Your task to perform on an android device: install app "McDonald's" Image 0: 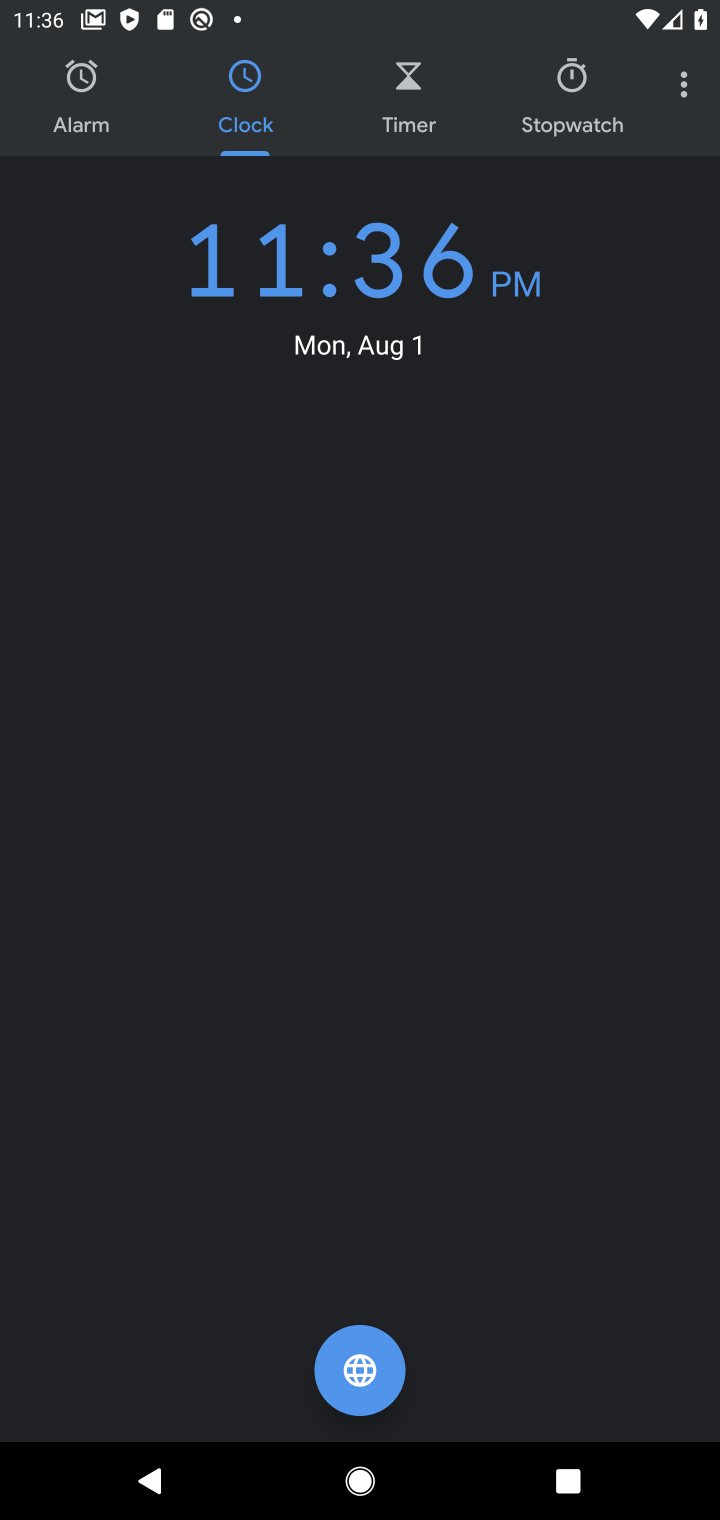
Step 0: press home button
Your task to perform on an android device: install app "McDonald's" Image 1: 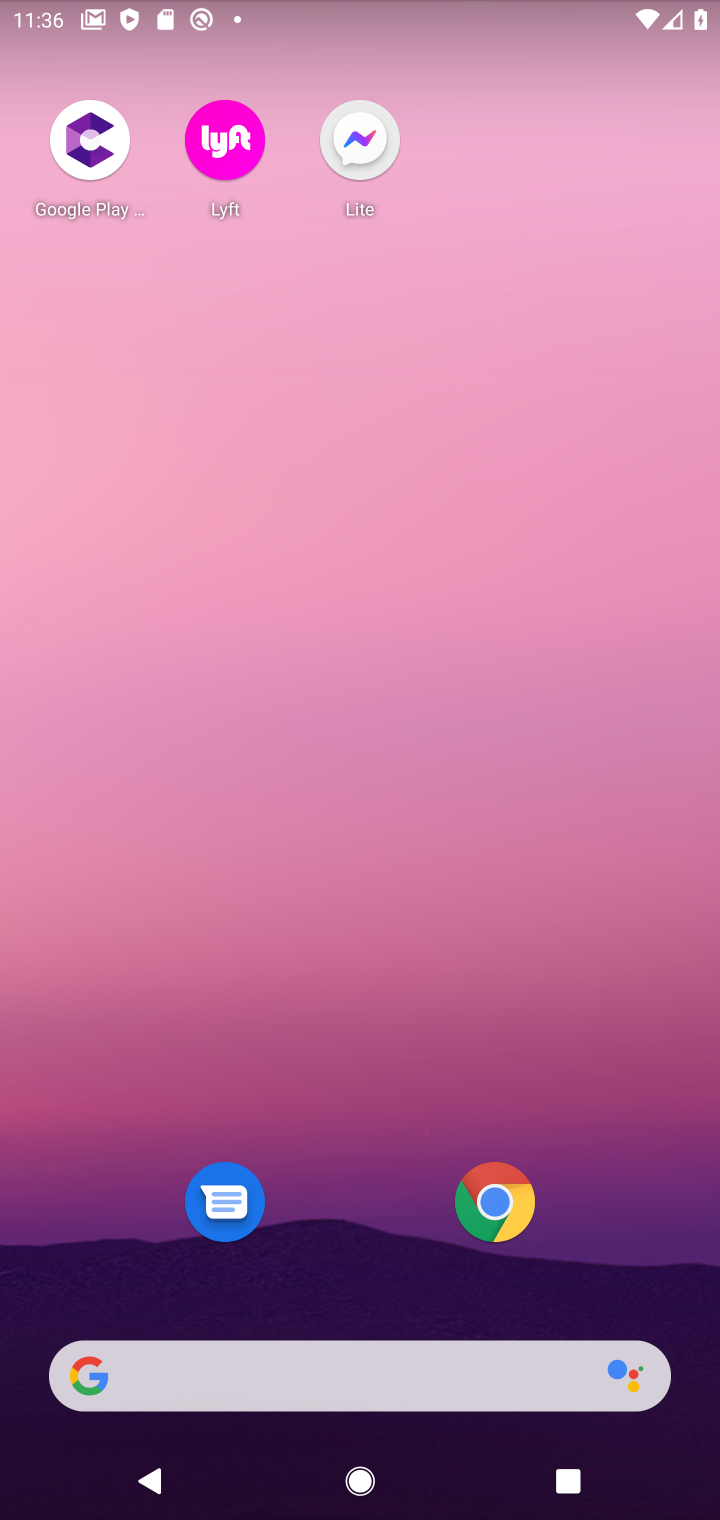
Step 1: drag from (322, 776) to (346, 74)
Your task to perform on an android device: install app "McDonald's" Image 2: 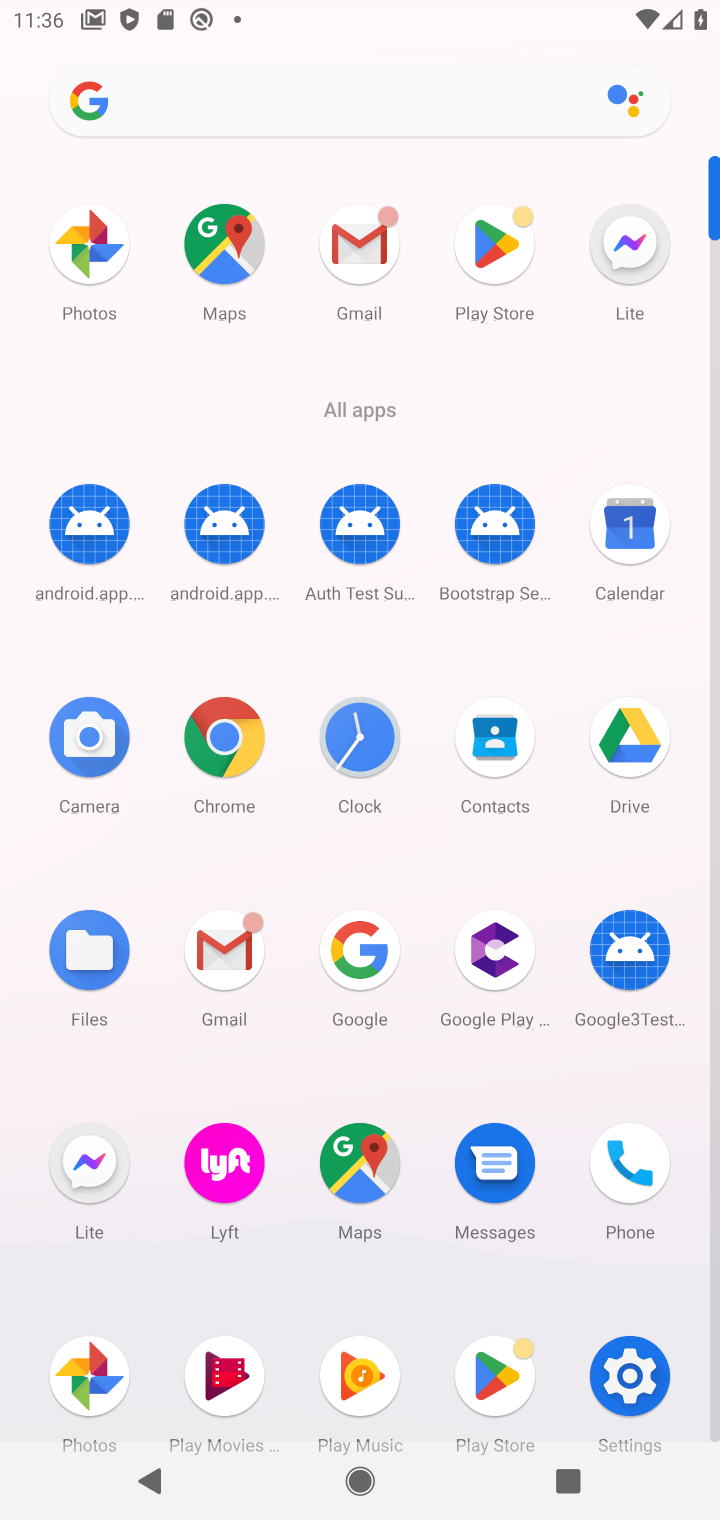
Step 2: click (491, 268)
Your task to perform on an android device: install app "McDonald's" Image 3: 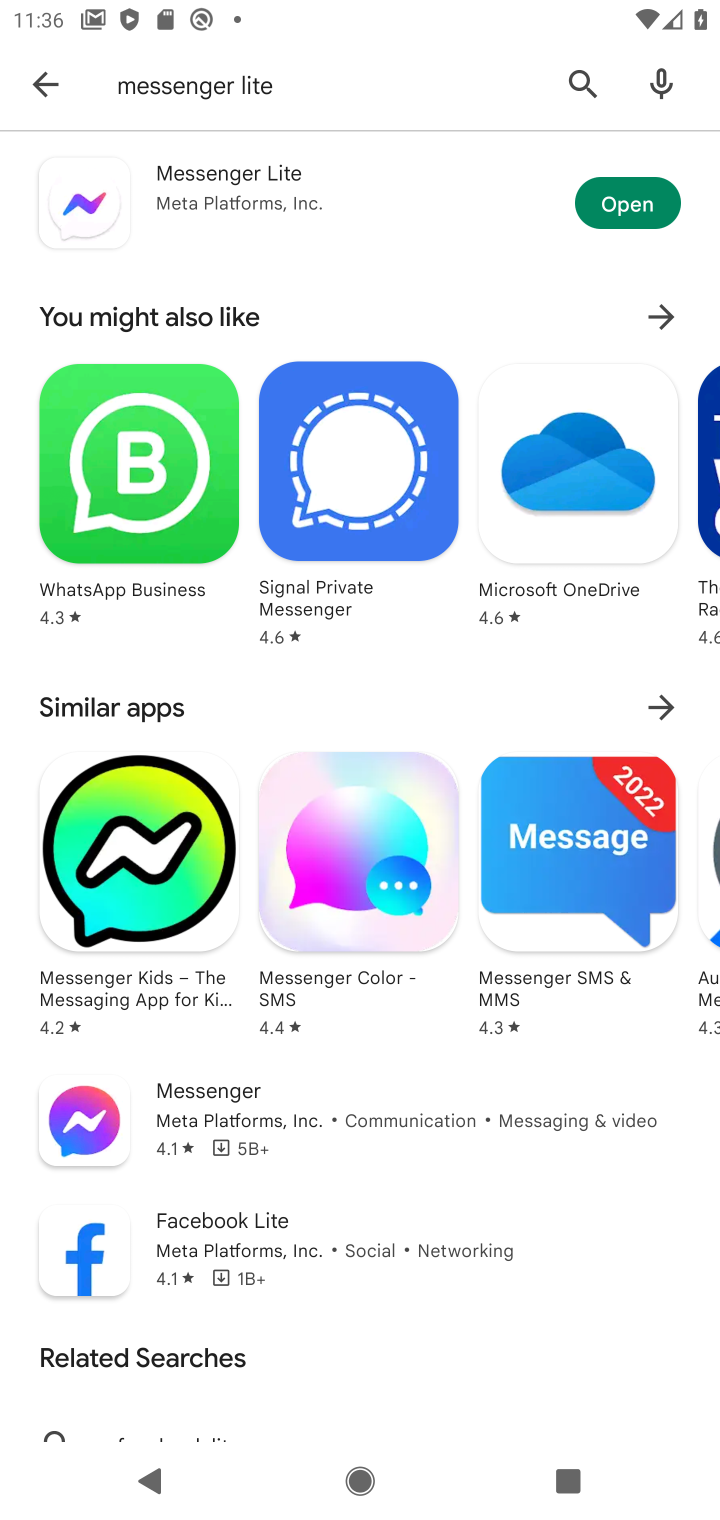
Step 3: click (37, 78)
Your task to perform on an android device: install app "McDonald's" Image 4: 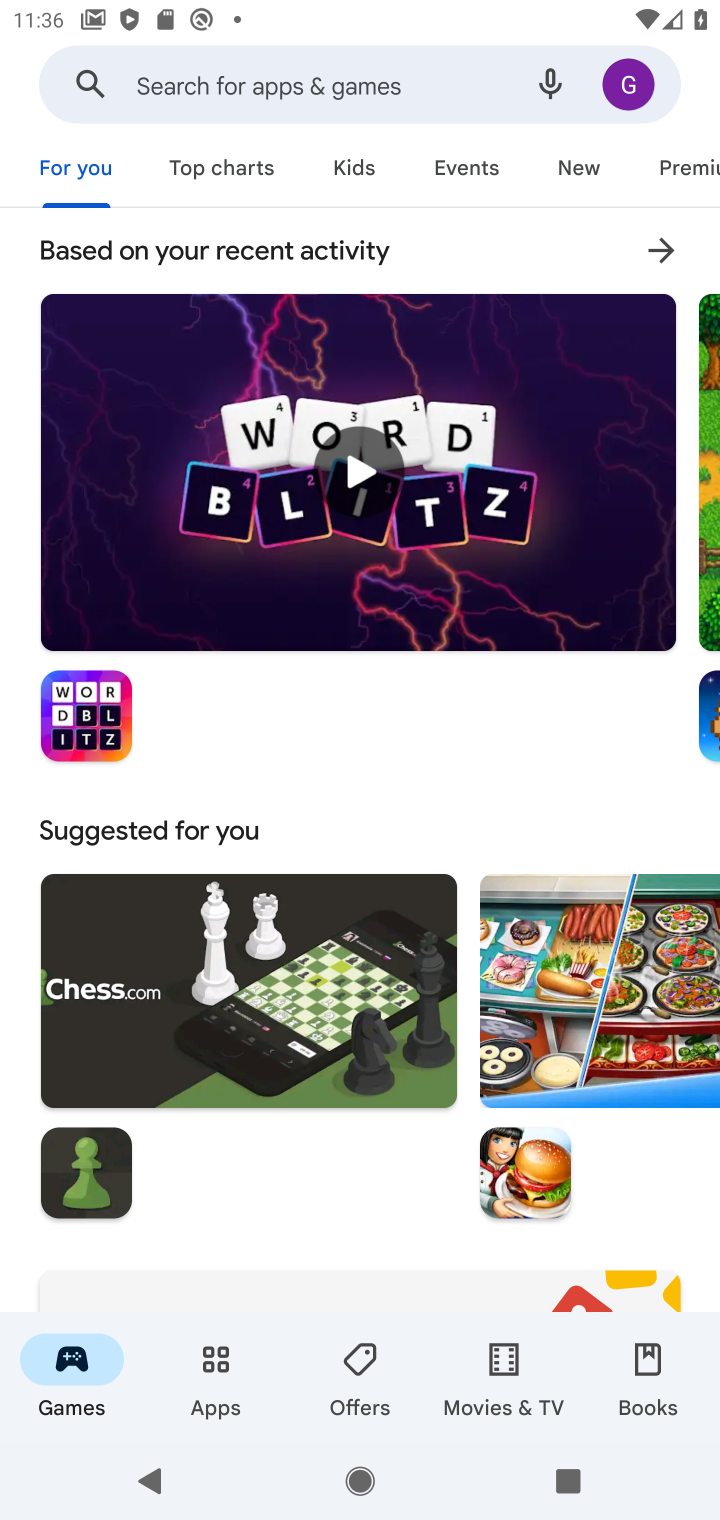
Step 4: click (319, 90)
Your task to perform on an android device: install app "McDonald's" Image 5: 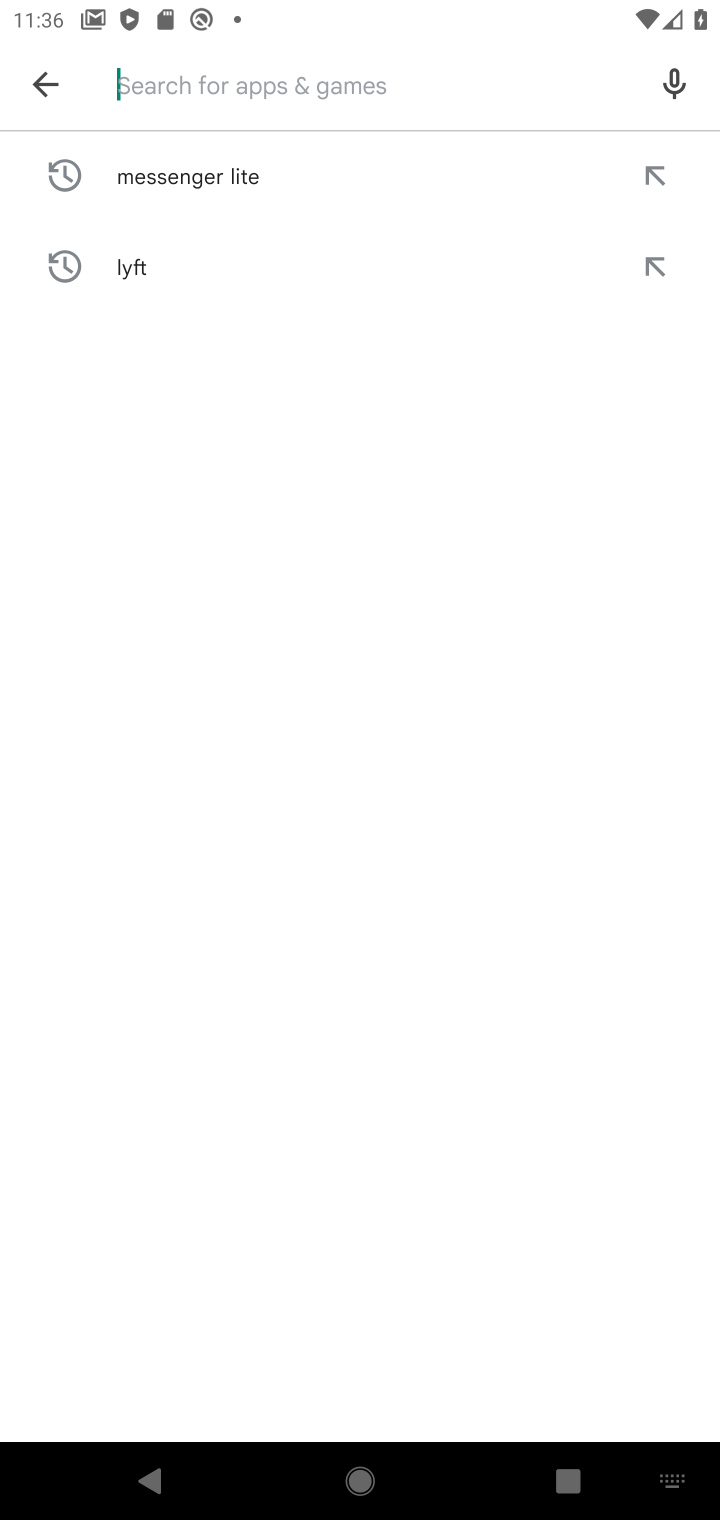
Step 5: type "McDonald's"
Your task to perform on an android device: install app "McDonald's" Image 6: 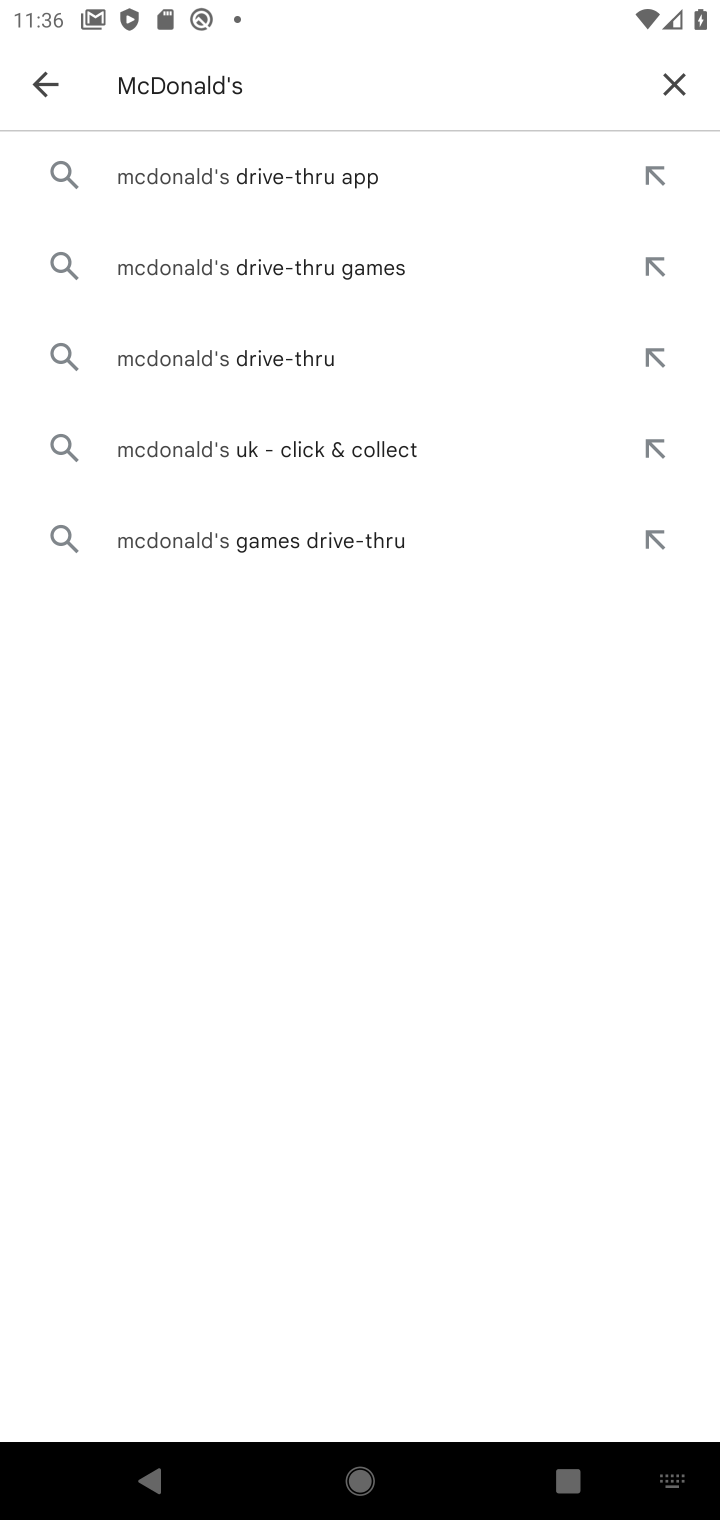
Step 6: click (310, 181)
Your task to perform on an android device: install app "McDonald's" Image 7: 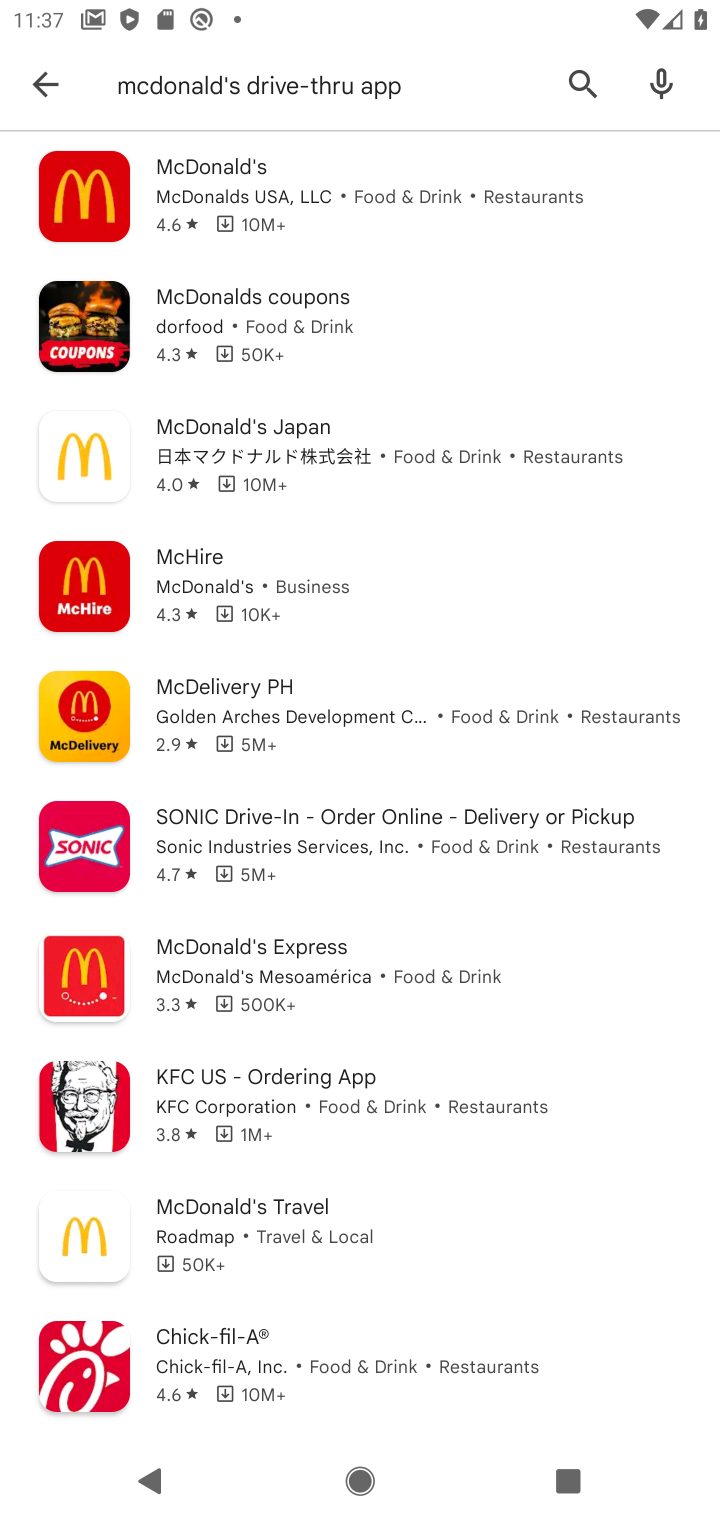
Step 7: click (310, 181)
Your task to perform on an android device: install app "McDonald's" Image 8: 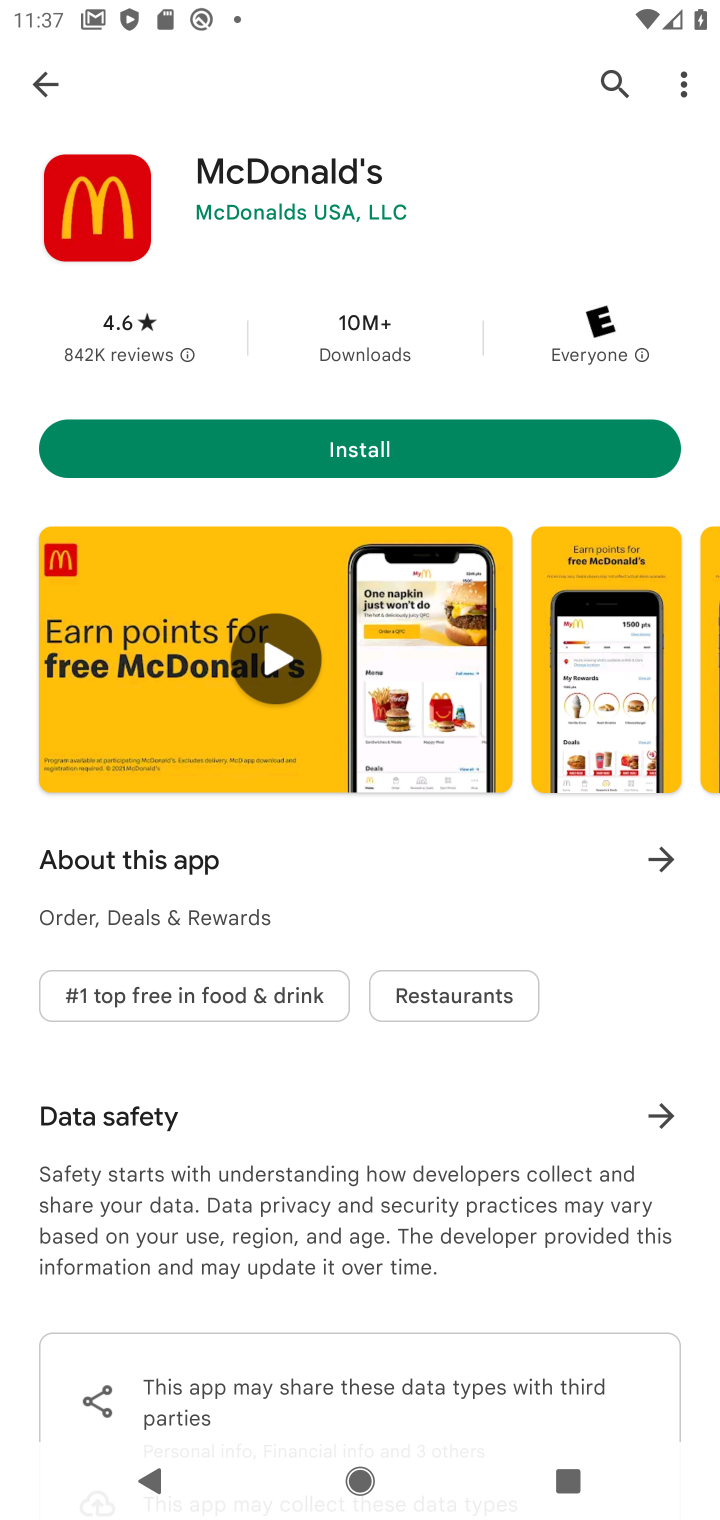
Step 8: click (366, 423)
Your task to perform on an android device: install app "McDonald's" Image 9: 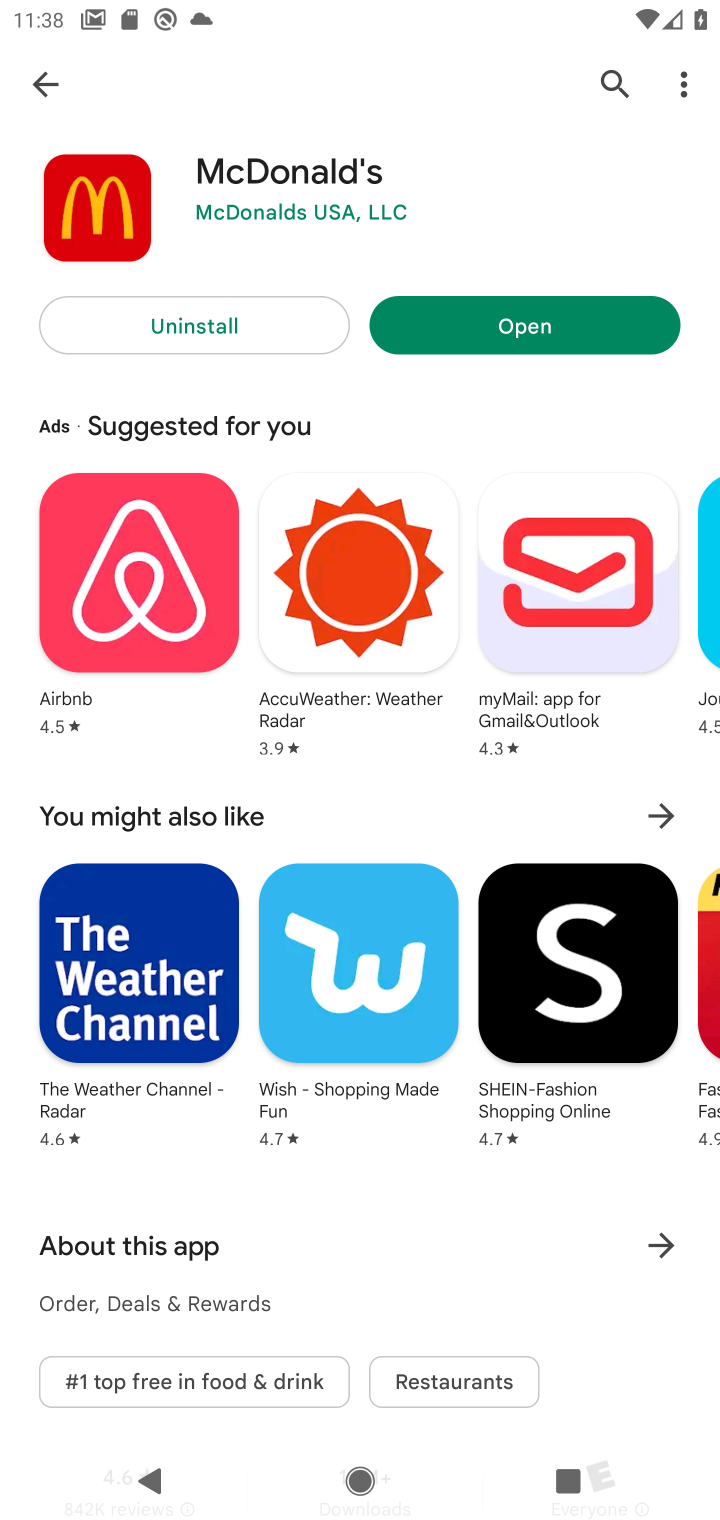
Step 9: click (519, 325)
Your task to perform on an android device: install app "McDonald's" Image 10: 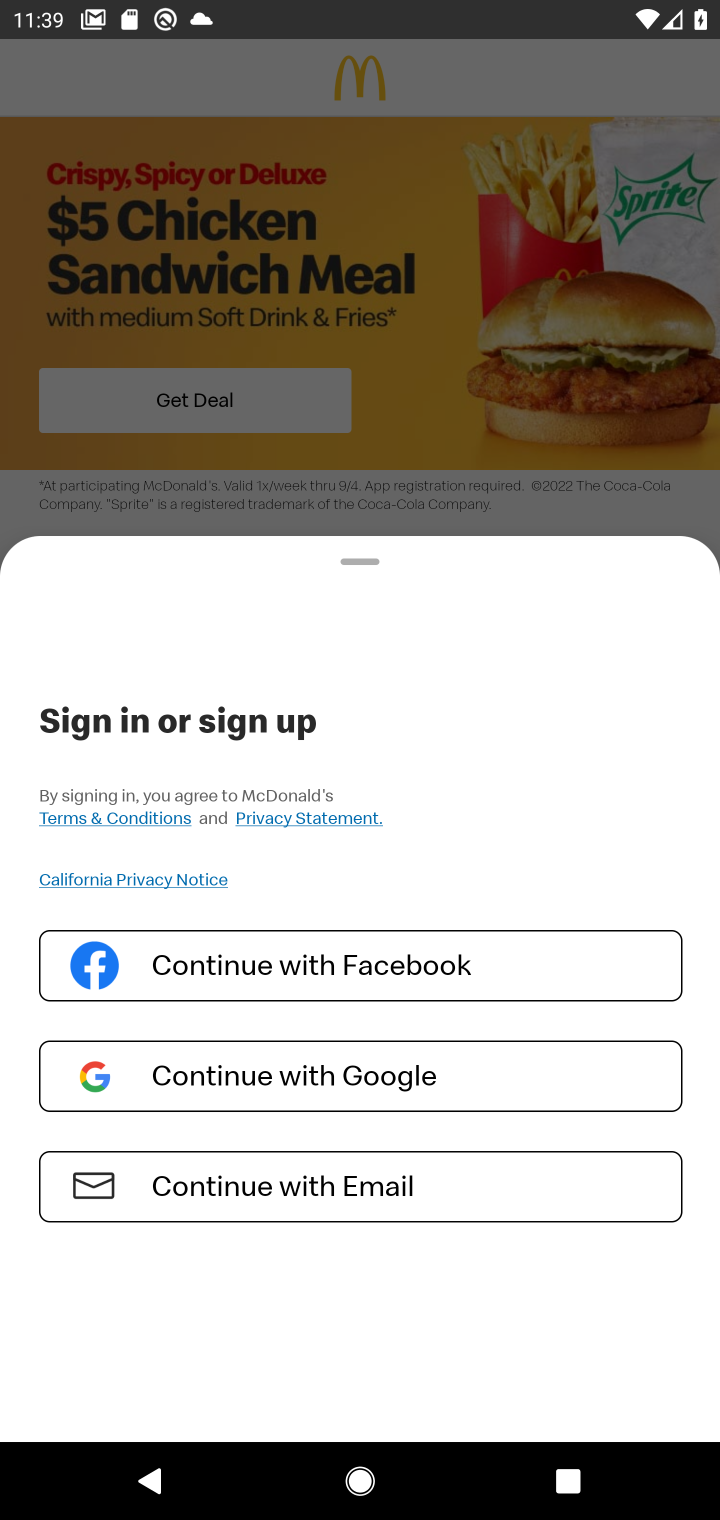
Step 10: task complete